Your task to perform on an android device: change timer sound Image 0: 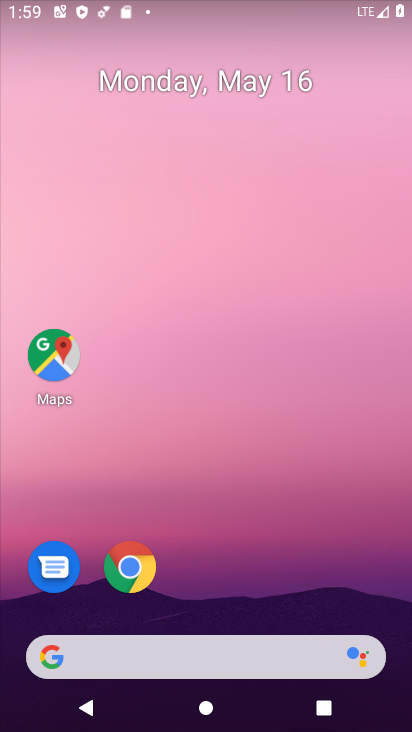
Step 0: drag from (276, 600) to (256, 205)
Your task to perform on an android device: change timer sound Image 1: 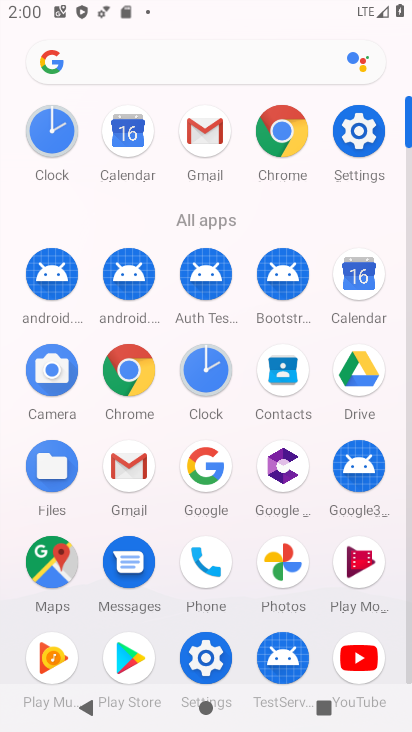
Step 1: click (26, 110)
Your task to perform on an android device: change timer sound Image 2: 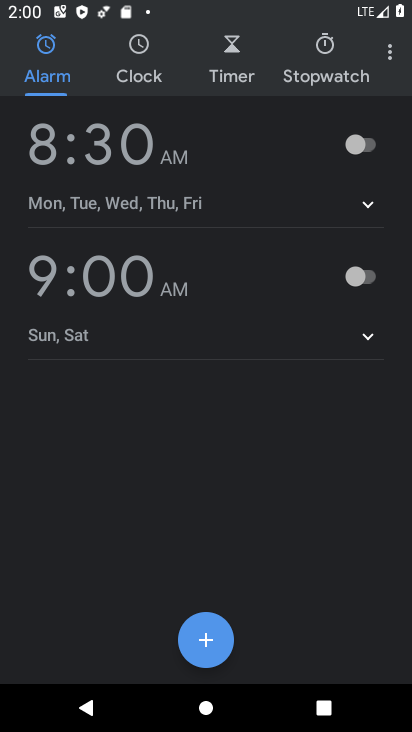
Step 2: click (397, 54)
Your task to perform on an android device: change timer sound Image 3: 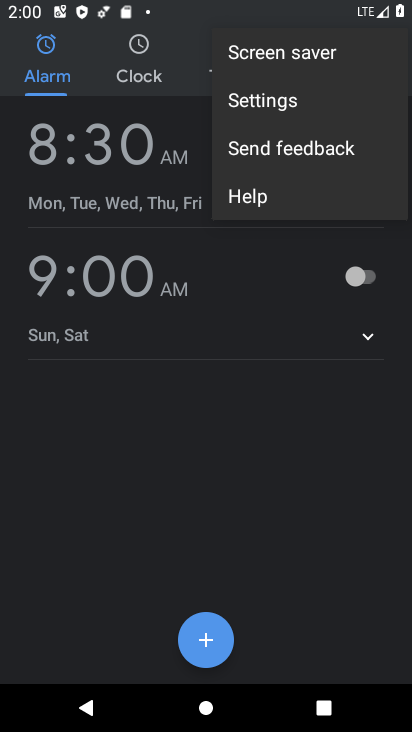
Step 3: click (354, 96)
Your task to perform on an android device: change timer sound Image 4: 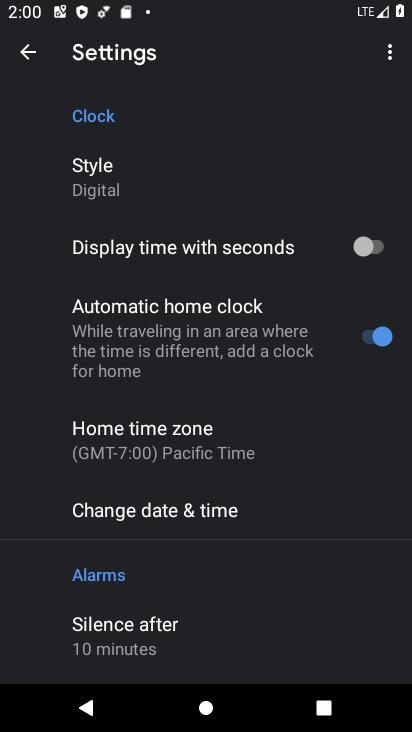
Step 4: drag from (301, 619) to (255, 262)
Your task to perform on an android device: change timer sound Image 5: 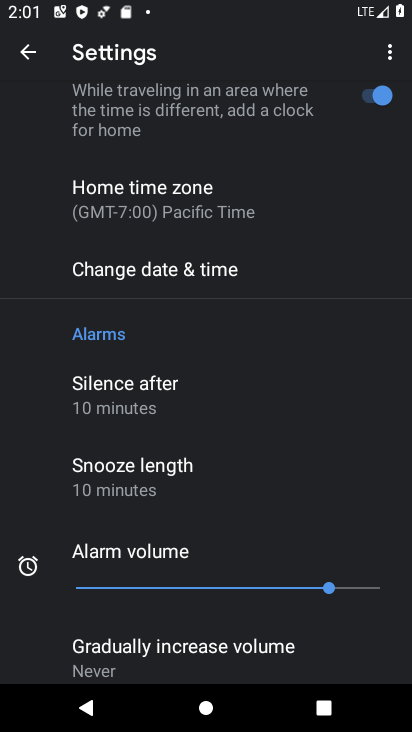
Step 5: drag from (264, 657) to (214, 217)
Your task to perform on an android device: change timer sound Image 6: 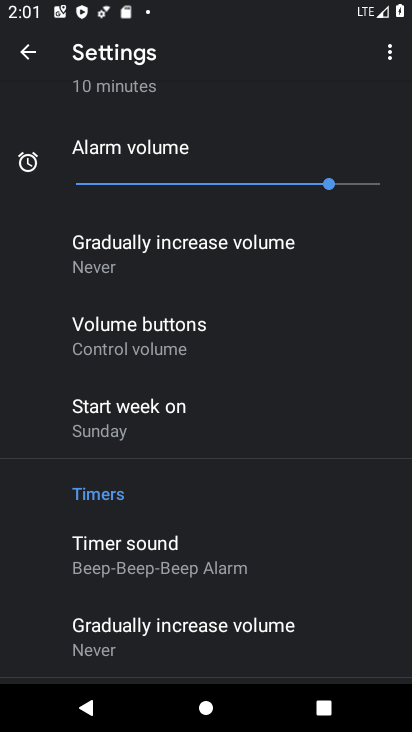
Step 6: click (227, 551)
Your task to perform on an android device: change timer sound Image 7: 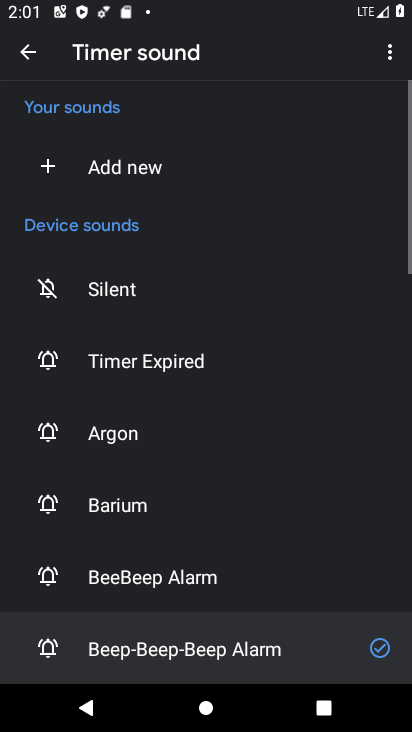
Step 7: click (209, 522)
Your task to perform on an android device: change timer sound Image 8: 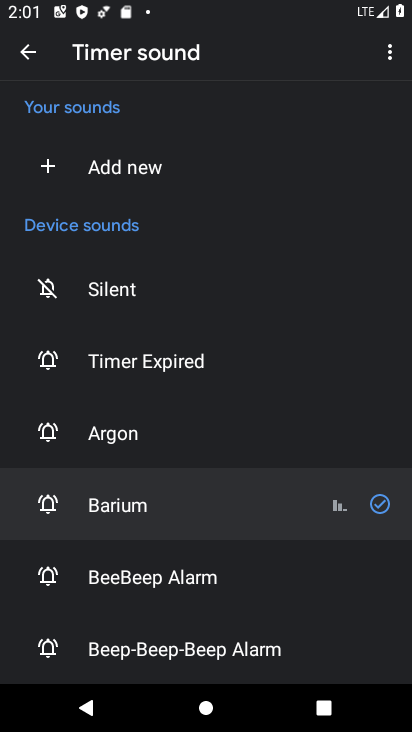
Step 8: task complete